Your task to perform on an android device: What's on my calendar today? Image 0: 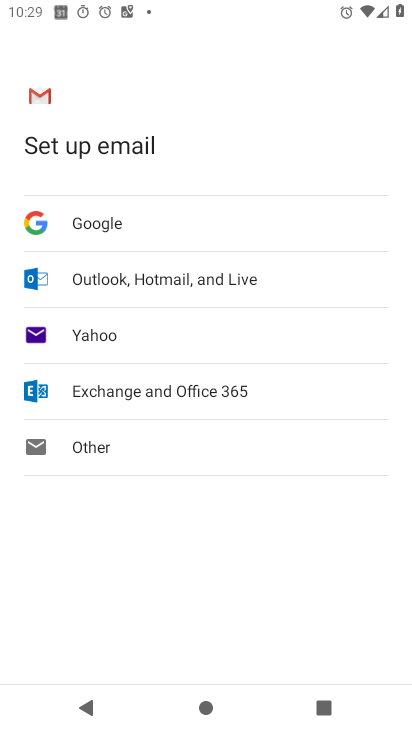
Step 0: press home button
Your task to perform on an android device: What's on my calendar today? Image 1: 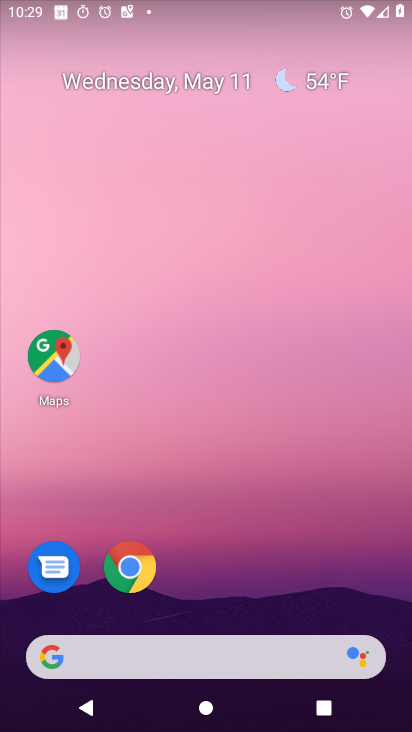
Step 1: drag from (201, 583) to (261, 221)
Your task to perform on an android device: What's on my calendar today? Image 2: 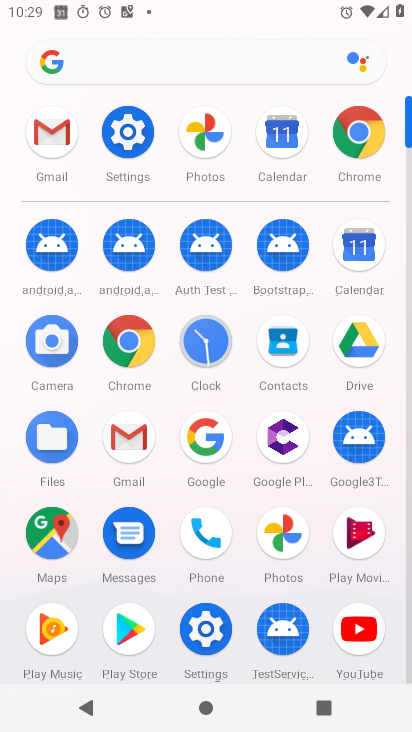
Step 2: click (361, 266)
Your task to perform on an android device: What's on my calendar today? Image 3: 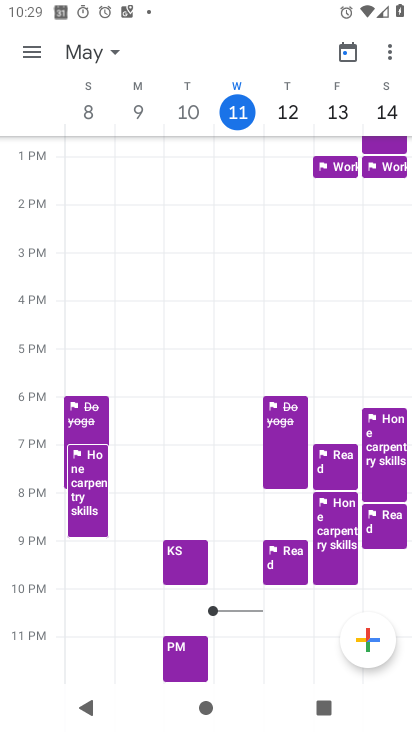
Step 3: click (36, 51)
Your task to perform on an android device: What's on my calendar today? Image 4: 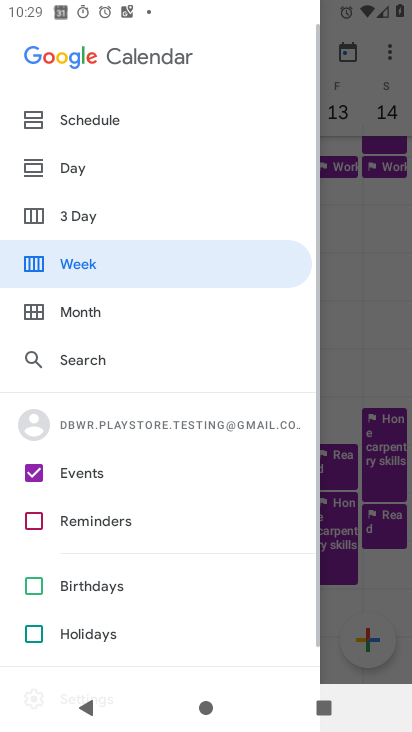
Step 4: click (101, 174)
Your task to perform on an android device: What's on my calendar today? Image 5: 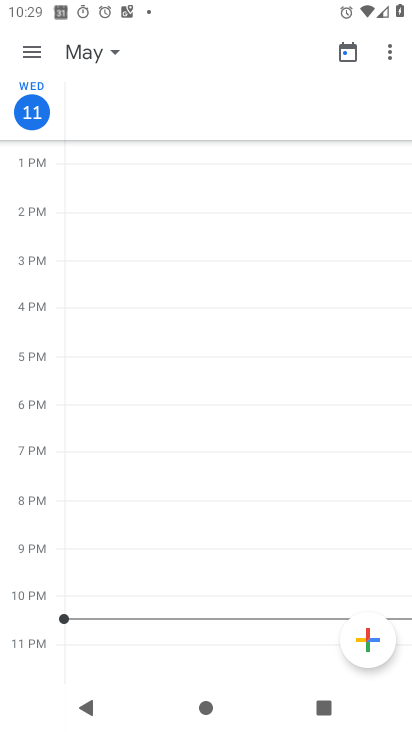
Step 5: task complete